Your task to perform on an android device: See recent photos Image 0: 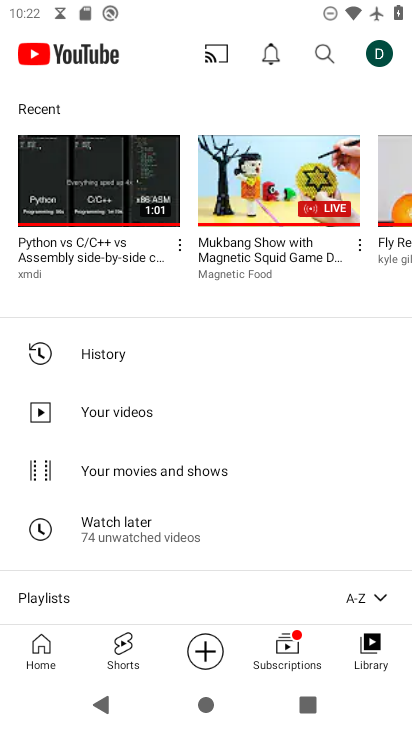
Step 0: press home button
Your task to perform on an android device: See recent photos Image 1: 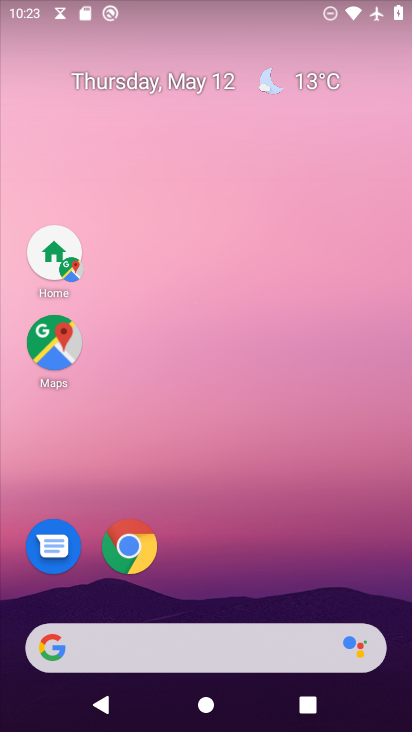
Step 1: drag from (181, 646) to (349, 72)
Your task to perform on an android device: See recent photos Image 2: 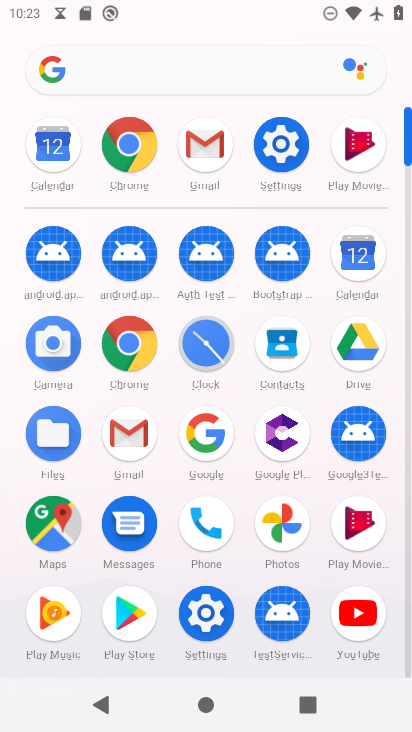
Step 2: click (288, 526)
Your task to perform on an android device: See recent photos Image 3: 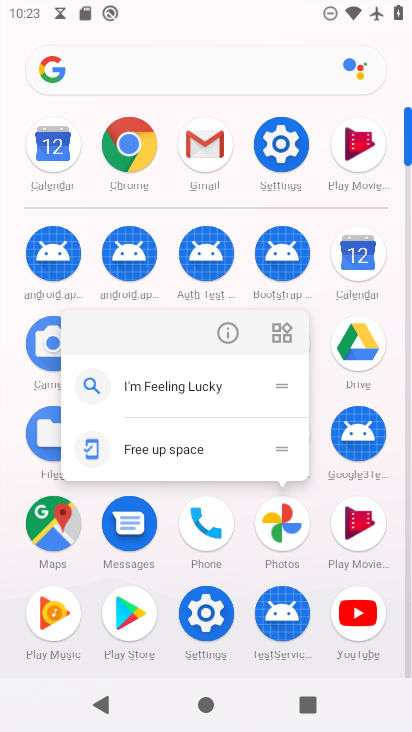
Step 3: click (280, 536)
Your task to perform on an android device: See recent photos Image 4: 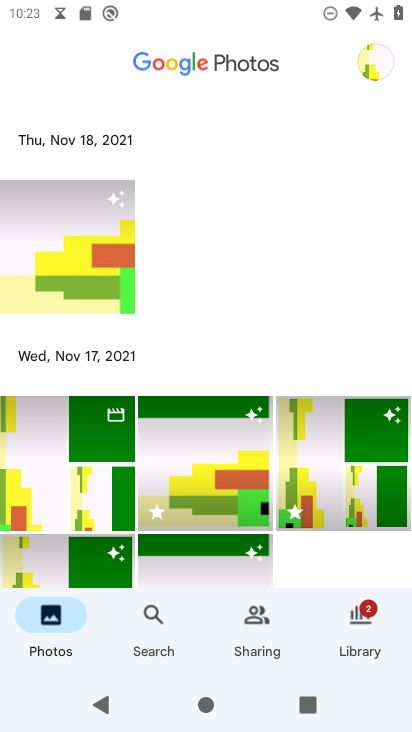
Step 4: click (151, 624)
Your task to perform on an android device: See recent photos Image 5: 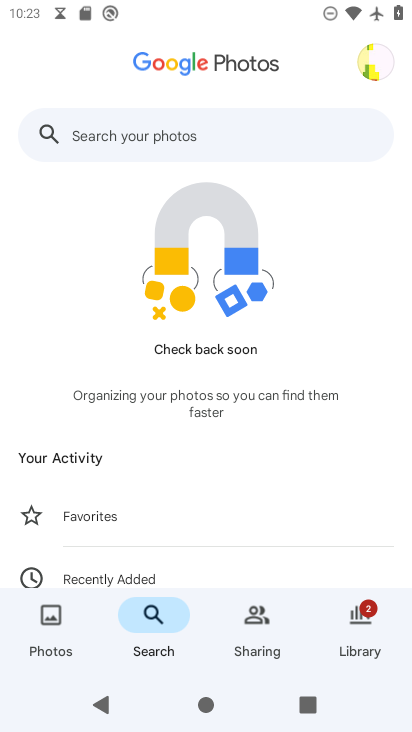
Step 5: drag from (160, 530) to (306, 174)
Your task to perform on an android device: See recent photos Image 6: 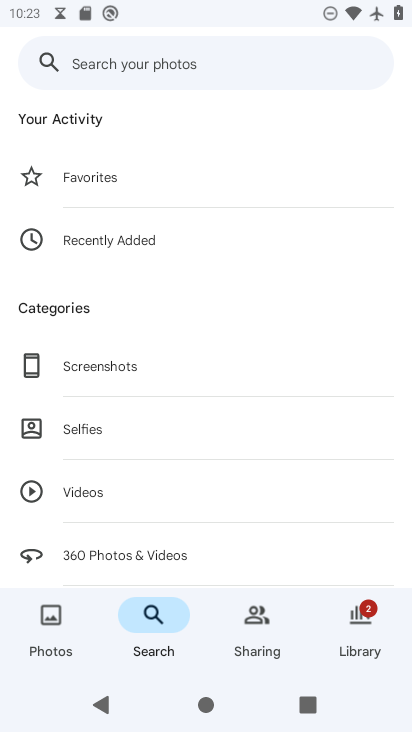
Step 6: click (141, 239)
Your task to perform on an android device: See recent photos Image 7: 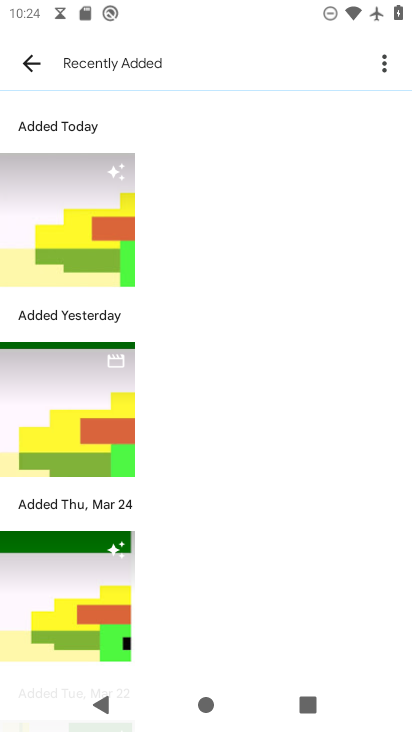
Step 7: task complete